Your task to perform on an android device: open app "Cash App" (install if not already installed), go to login, and select forgot password Image 0: 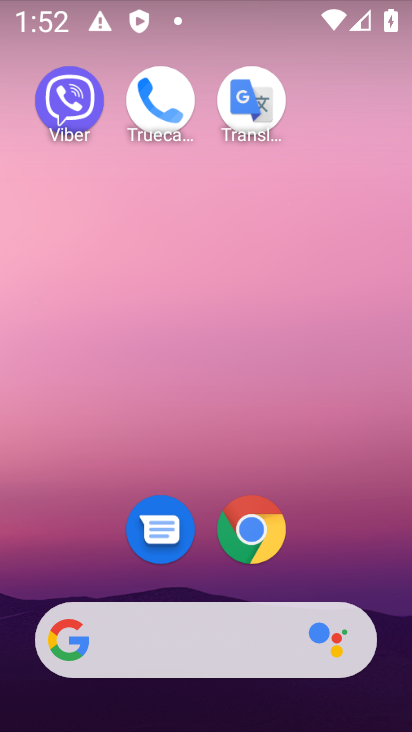
Step 0: drag from (211, 620) to (209, 16)
Your task to perform on an android device: open app "Cash App" (install if not already installed), go to login, and select forgot password Image 1: 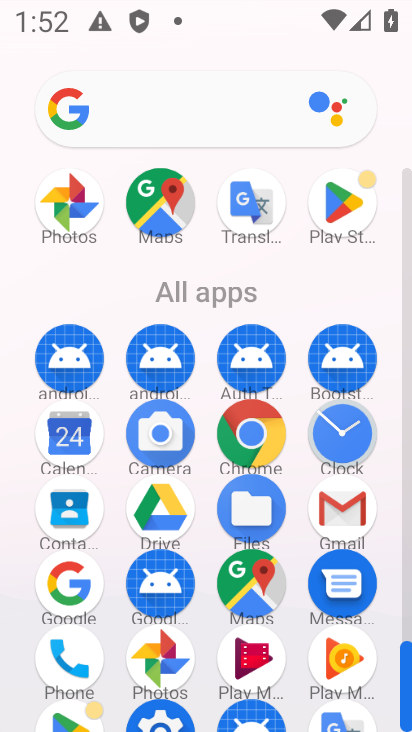
Step 1: click (350, 199)
Your task to perform on an android device: open app "Cash App" (install if not already installed), go to login, and select forgot password Image 2: 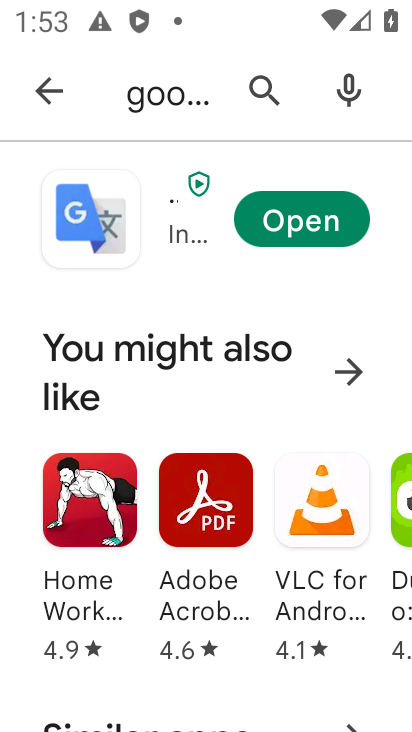
Step 2: click (263, 84)
Your task to perform on an android device: open app "Cash App" (install if not already installed), go to login, and select forgot password Image 3: 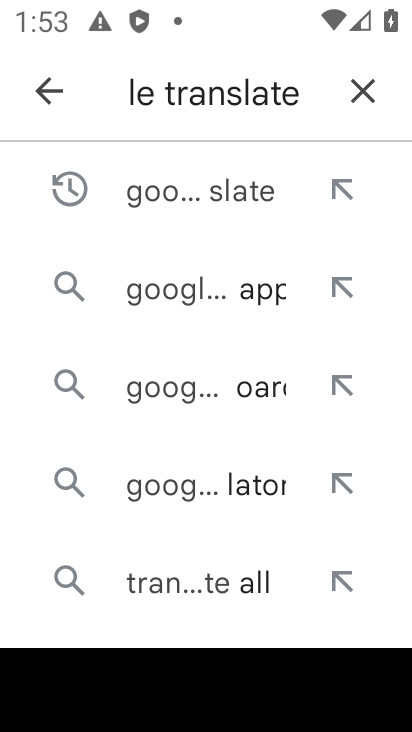
Step 3: click (349, 93)
Your task to perform on an android device: open app "Cash App" (install if not already installed), go to login, and select forgot password Image 4: 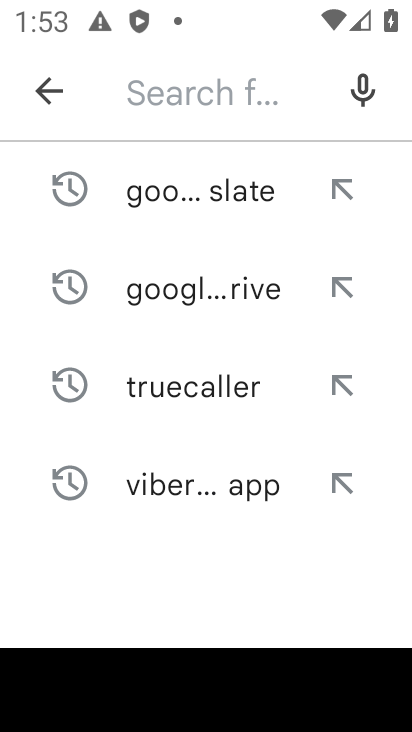
Step 4: type "cash app"
Your task to perform on an android device: open app "Cash App" (install if not already installed), go to login, and select forgot password Image 5: 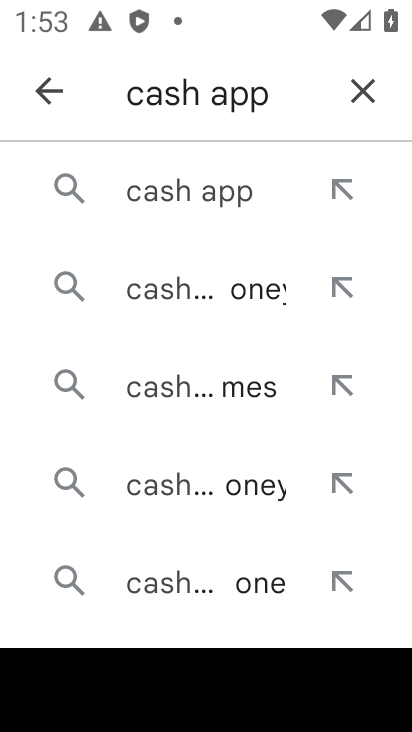
Step 5: click (222, 188)
Your task to perform on an android device: open app "Cash App" (install if not already installed), go to login, and select forgot password Image 6: 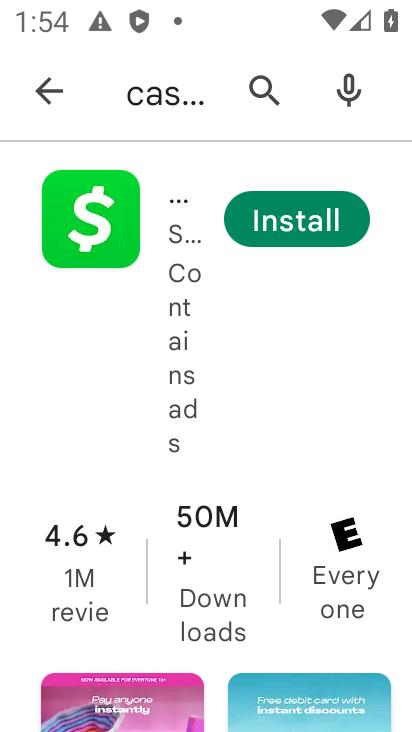
Step 6: click (288, 237)
Your task to perform on an android device: open app "Cash App" (install if not already installed), go to login, and select forgot password Image 7: 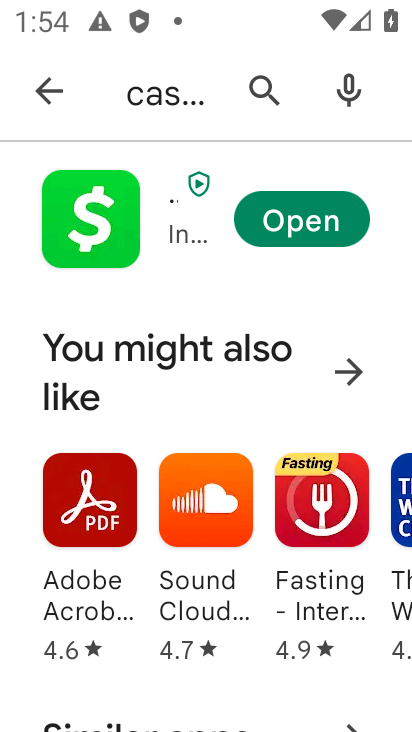
Step 7: click (270, 229)
Your task to perform on an android device: open app "Cash App" (install if not already installed), go to login, and select forgot password Image 8: 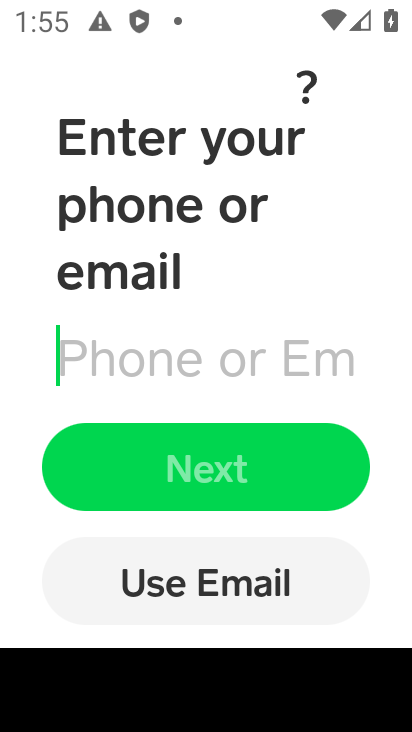
Step 8: click (285, 593)
Your task to perform on an android device: open app "Cash App" (install if not already installed), go to login, and select forgot password Image 9: 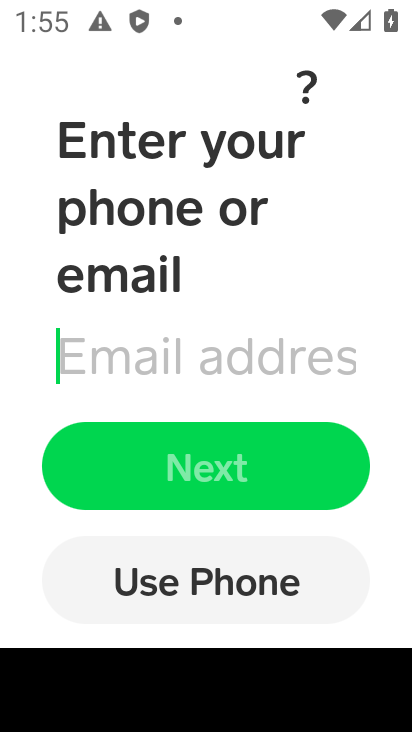
Step 9: task complete